Your task to perform on an android device: turn on priority inbox in the gmail app Image 0: 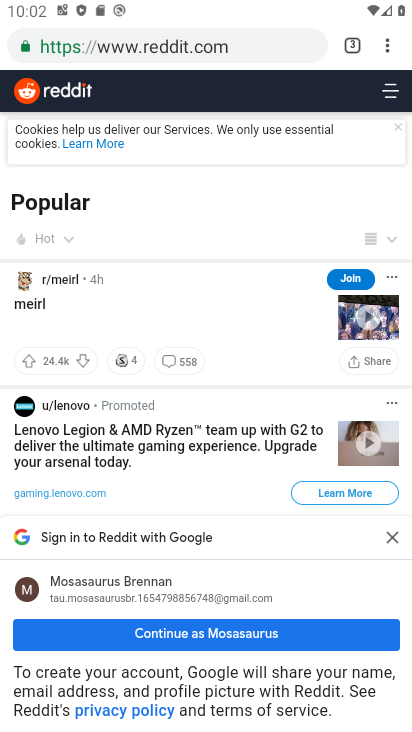
Step 0: press home button
Your task to perform on an android device: turn on priority inbox in the gmail app Image 1: 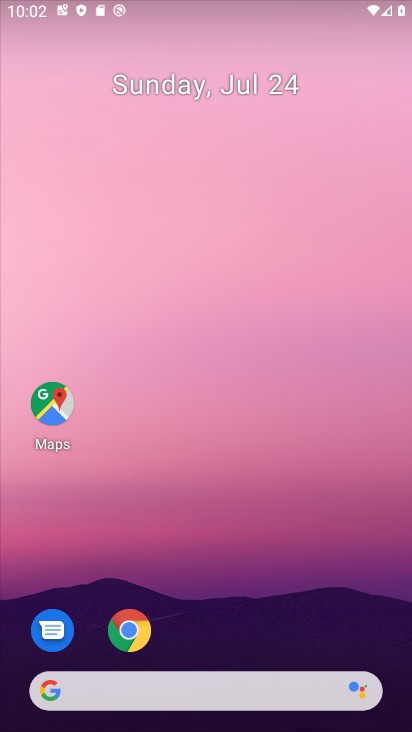
Step 1: click (158, 109)
Your task to perform on an android device: turn on priority inbox in the gmail app Image 2: 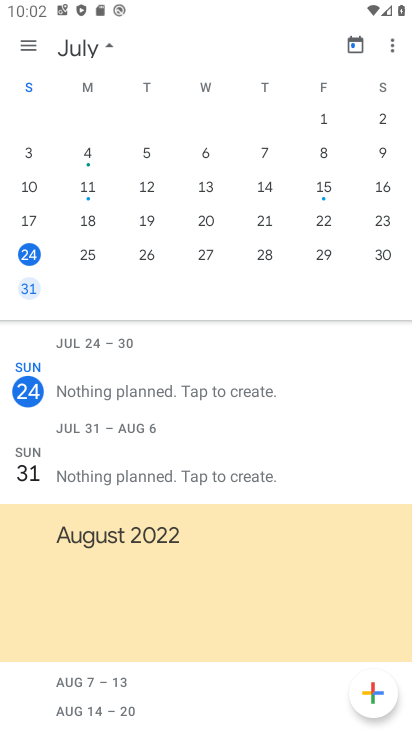
Step 2: press home button
Your task to perform on an android device: turn on priority inbox in the gmail app Image 3: 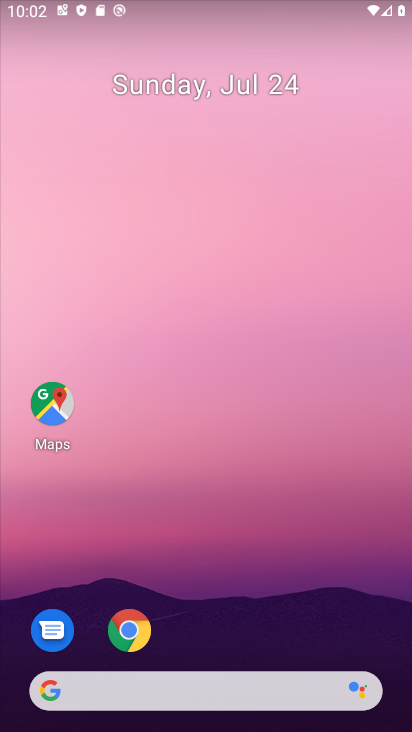
Step 3: drag from (199, 598) to (138, 58)
Your task to perform on an android device: turn on priority inbox in the gmail app Image 4: 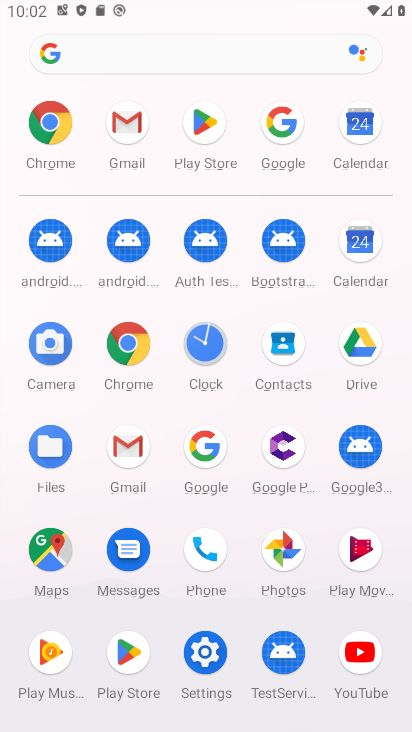
Step 4: click (133, 134)
Your task to perform on an android device: turn on priority inbox in the gmail app Image 5: 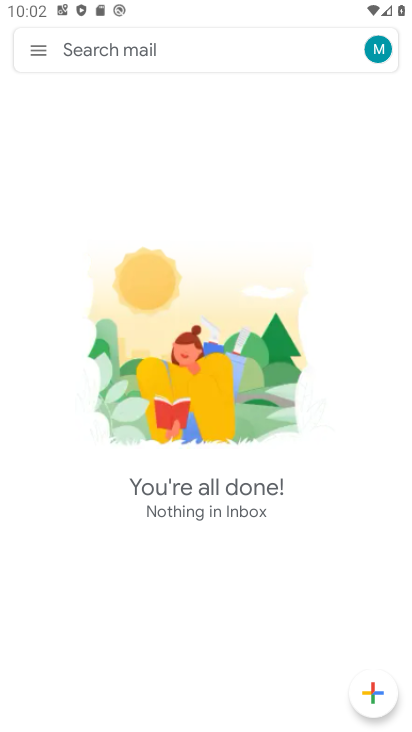
Step 5: click (44, 64)
Your task to perform on an android device: turn on priority inbox in the gmail app Image 6: 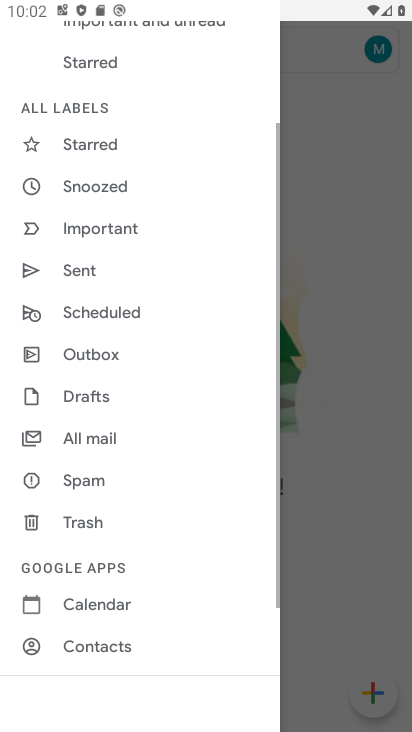
Step 6: drag from (138, 598) to (153, 196)
Your task to perform on an android device: turn on priority inbox in the gmail app Image 7: 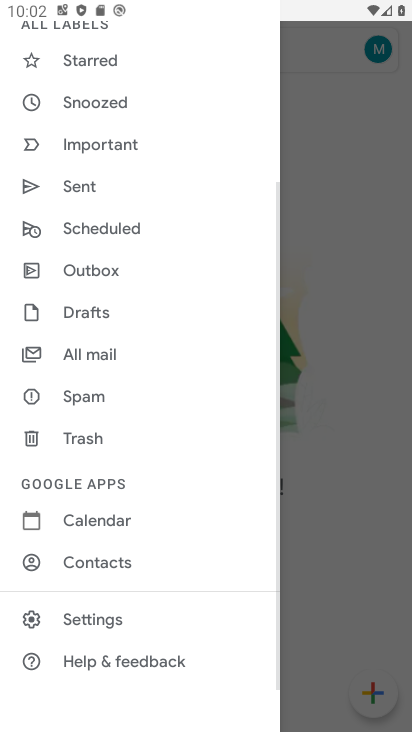
Step 7: click (139, 615)
Your task to perform on an android device: turn on priority inbox in the gmail app Image 8: 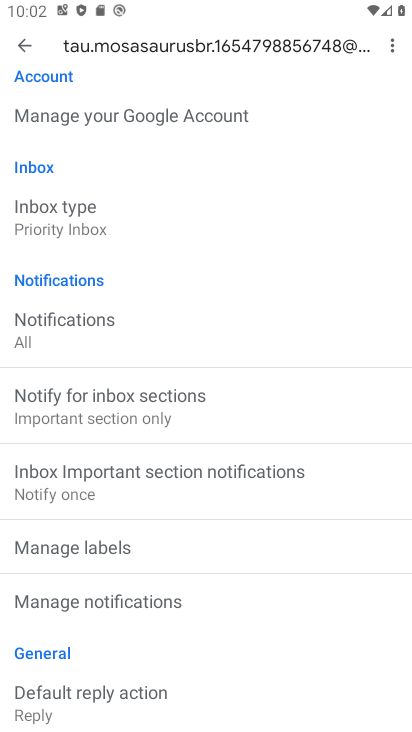
Step 8: click (124, 223)
Your task to perform on an android device: turn on priority inbox in the gmail app Image 9: 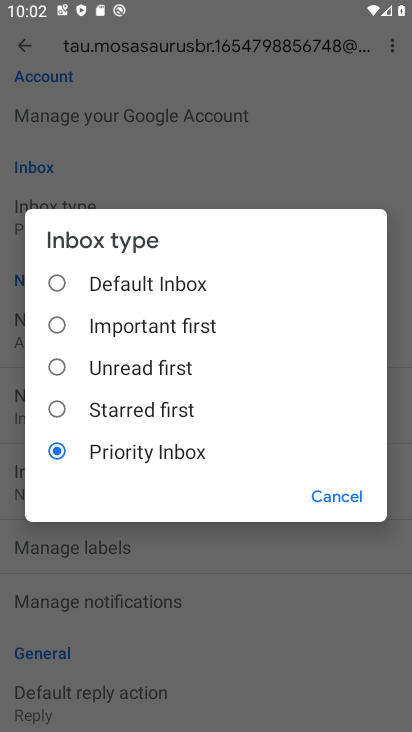
Step 9: task complete